Your task to perform on an android device: What's on my calendar tomorrow? Image 0: 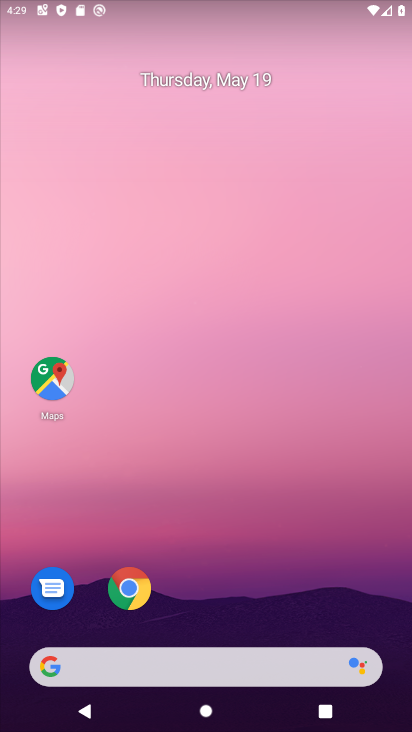
Step 0: click (202, 78)
Your task to perform on an android device: What's on my calendar tomorrow? Image 1: 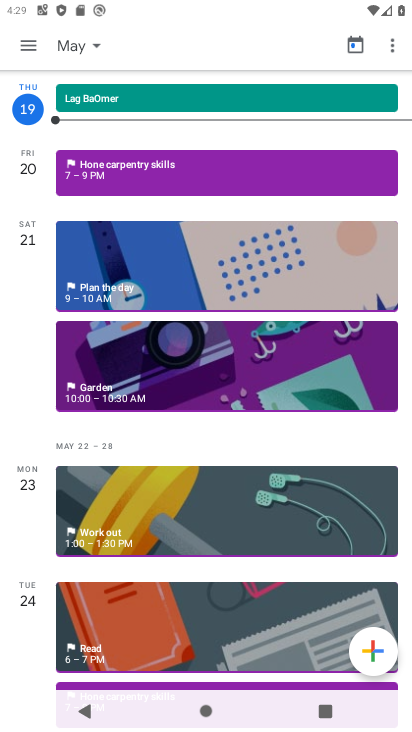
Step 1: click (92, 39)
Your task to perform on an android device: What's on my calendar tomorrow? Image 2: 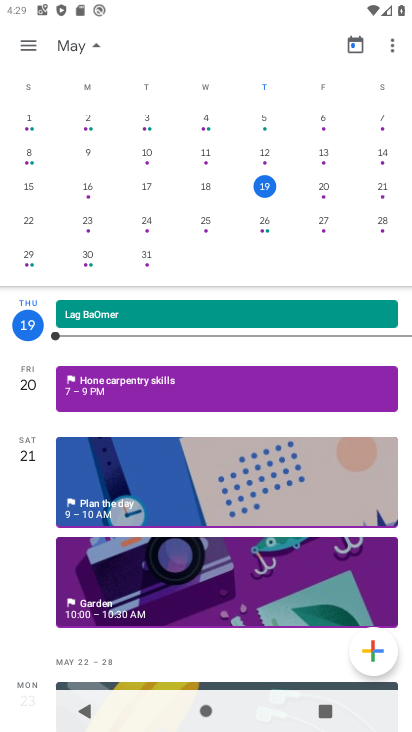
Step 2: click (327, 190)
Your task to perform on an android device: What's on my calendar tomorrow? Image 3: 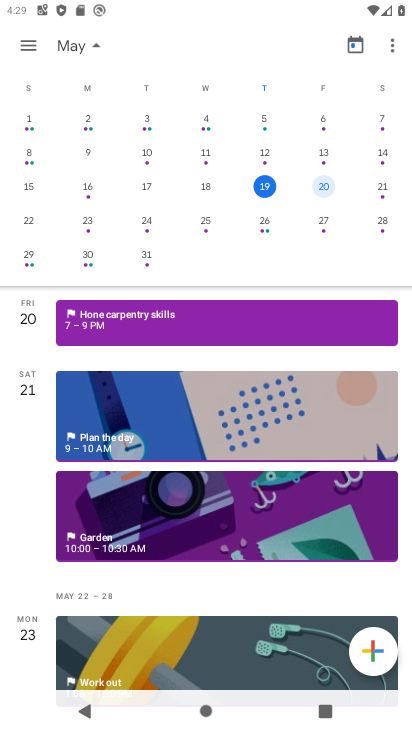
Step 3: task complete